Your task to perform on an android device: turn off sleep mode Image 0: 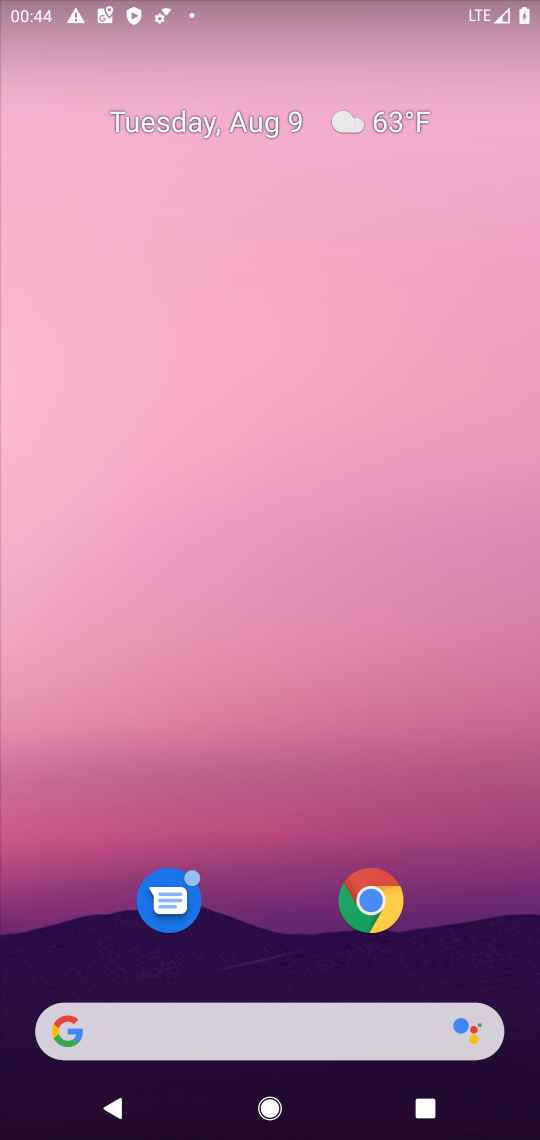
Step 0: press home button
Your task to perform on an android device: turn off sleep mode Image 1: 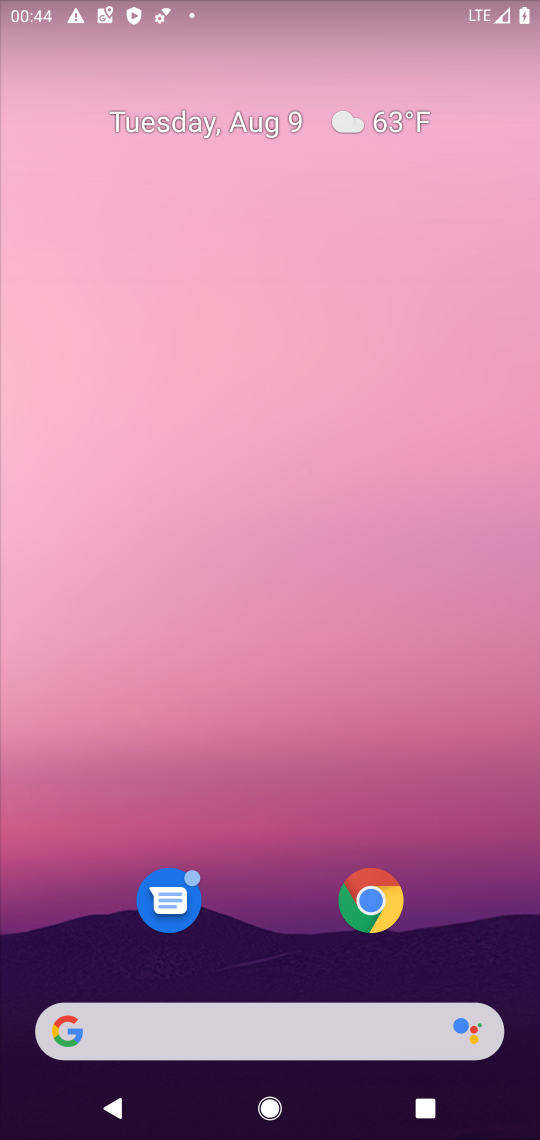
Step 1: drag from (262, 959) to (404, 148)
Your task to perform on an android device: turn off sleep mode Image 2: 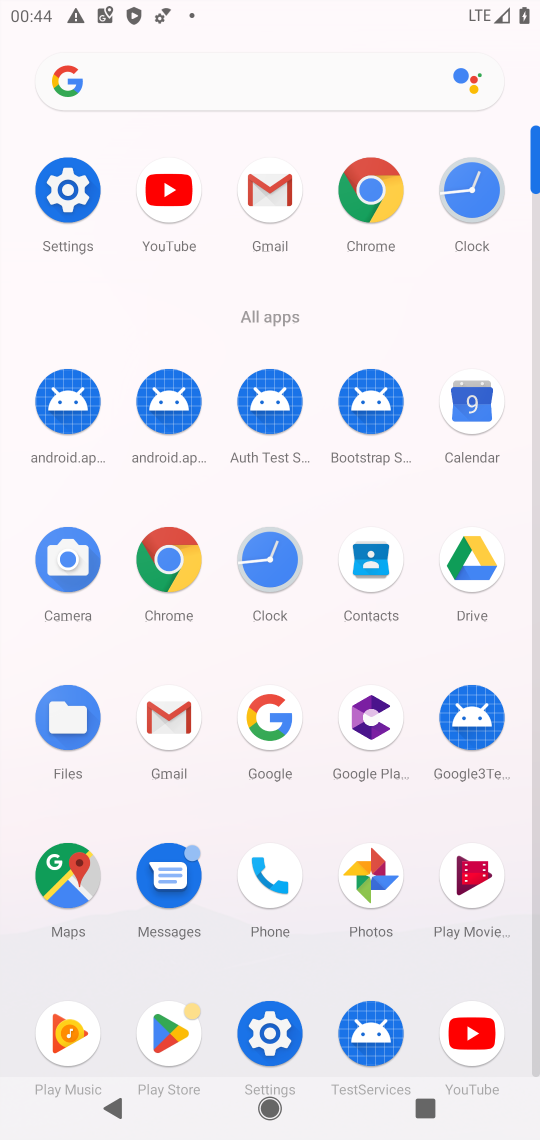
Step 2: click (58, 191)
Your task to perform on an android device: turn off sleep mode Image 3: 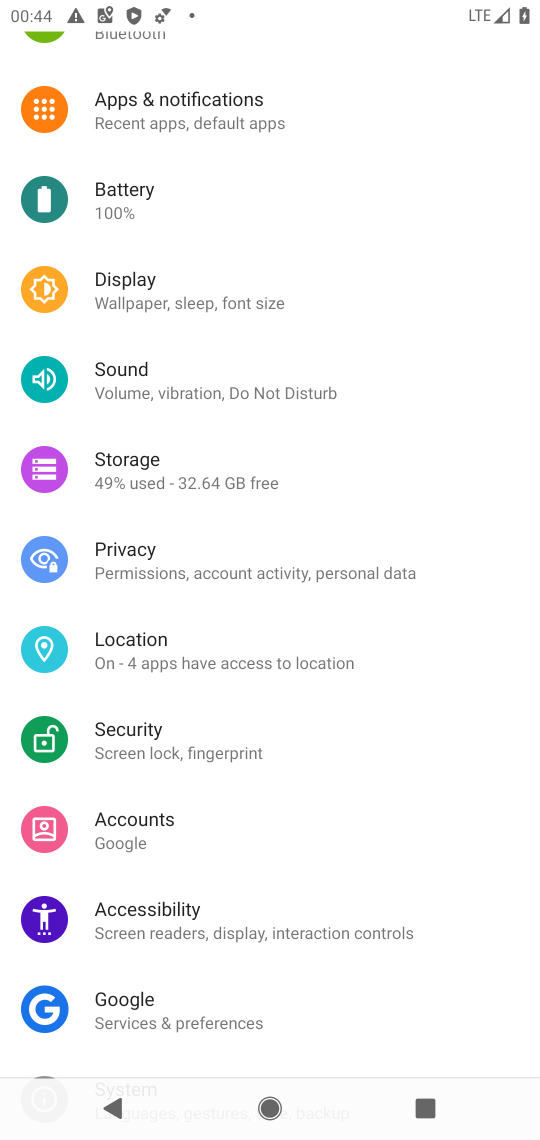
Step 3: drag from (474, 288) to (471, 486)
Your task to perform on an android device: turn off sleep mode Image 4: 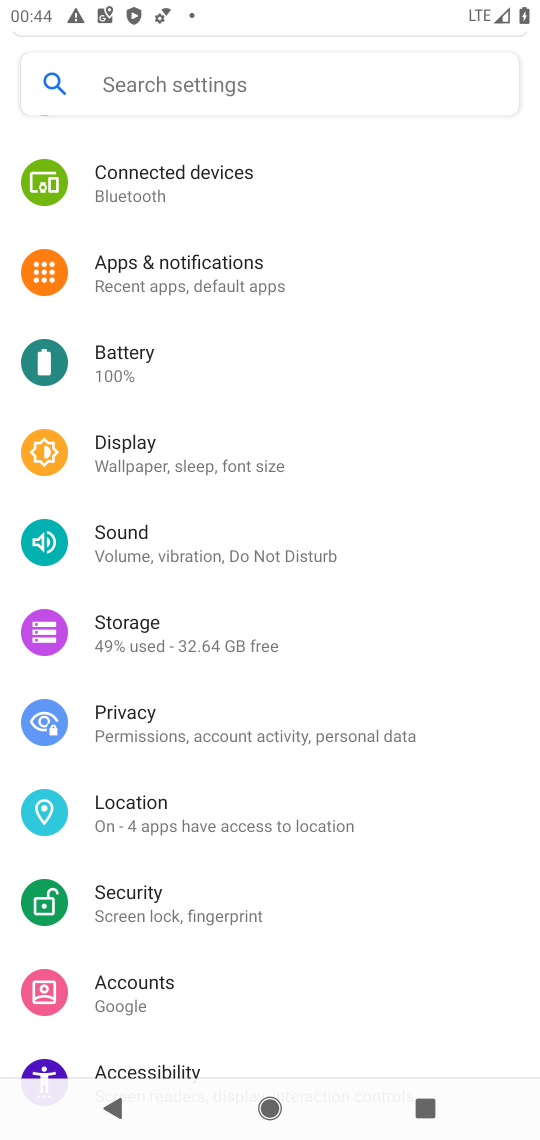
Step 4: drag from (450, 165) to (450, 450)
Your task to perform on an android device: turn off sleep mode Image 5: 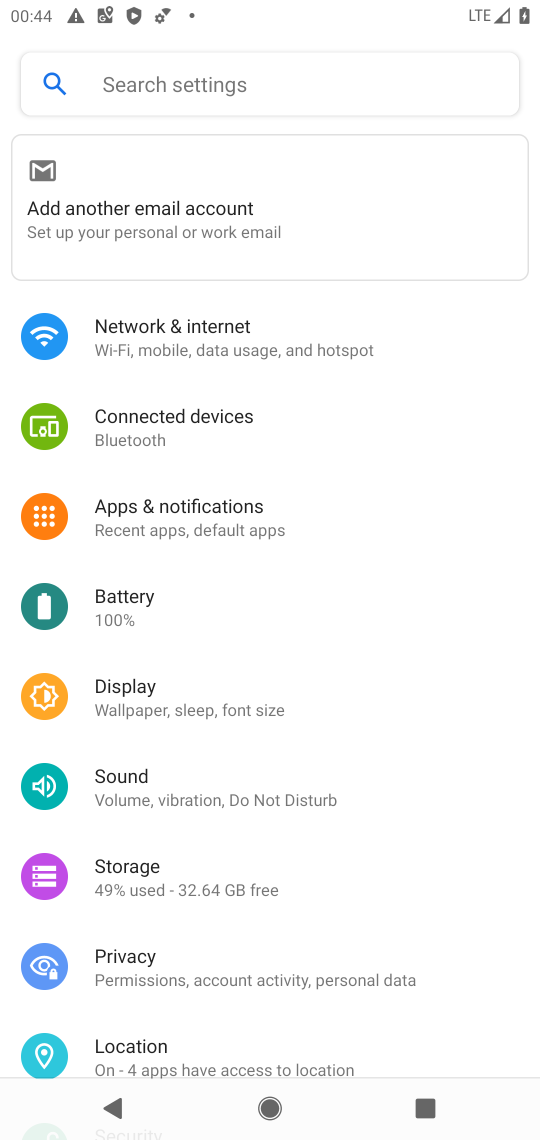
Step 5: drag from (452, 301) to (454, 395)
Your task to perform on an android device: turn off sleep mode Image 6: 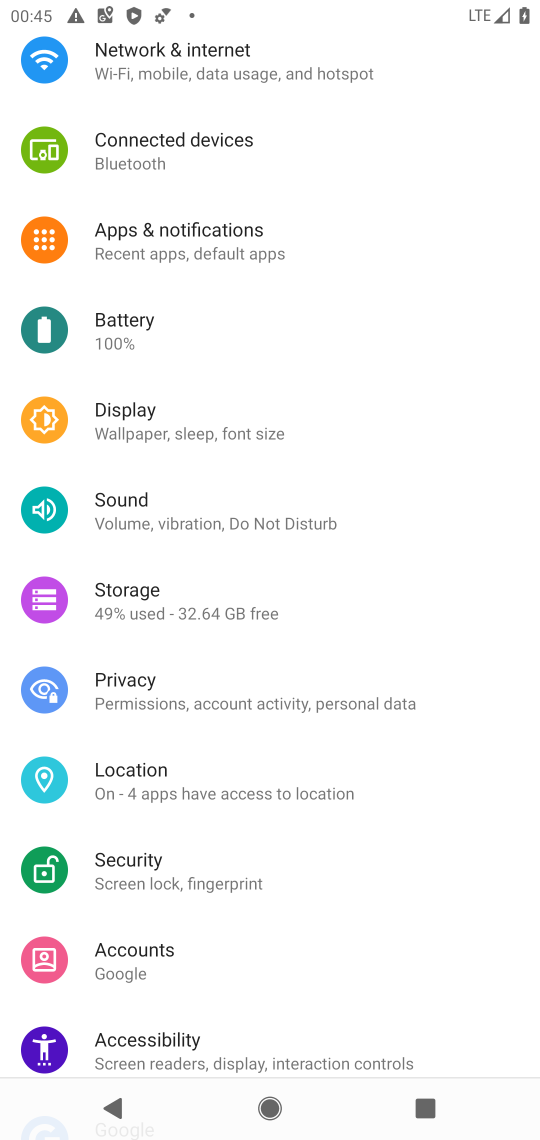
Step 6: drag from (432, 619) to (422, 412)
Your task to perform on an android device: turn off sleep mode Image 7: 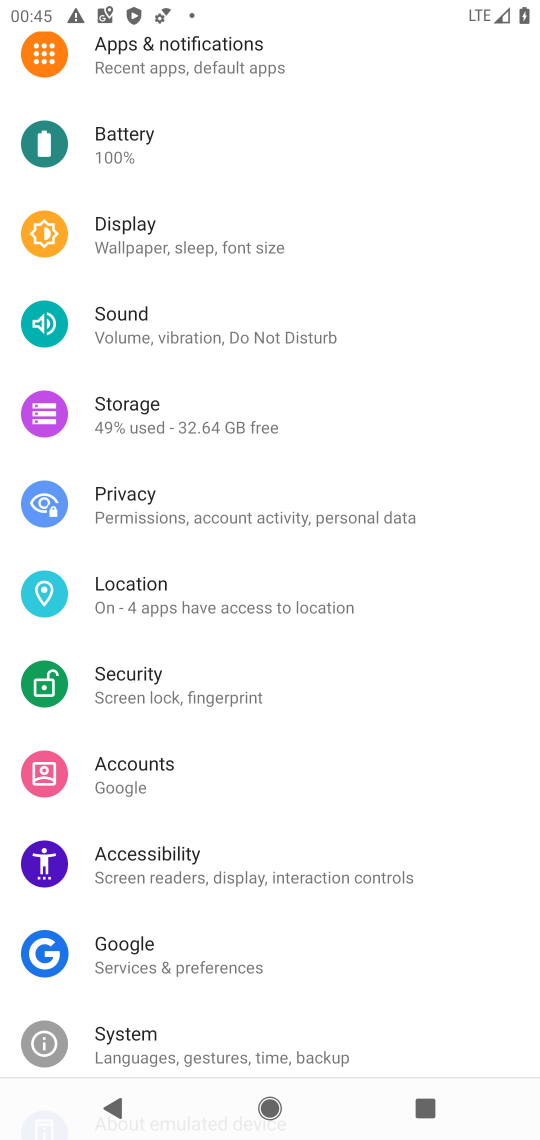
Step 7: click (261, 247)
Your task to perform on an android device: turn off sleep mode Image 8: 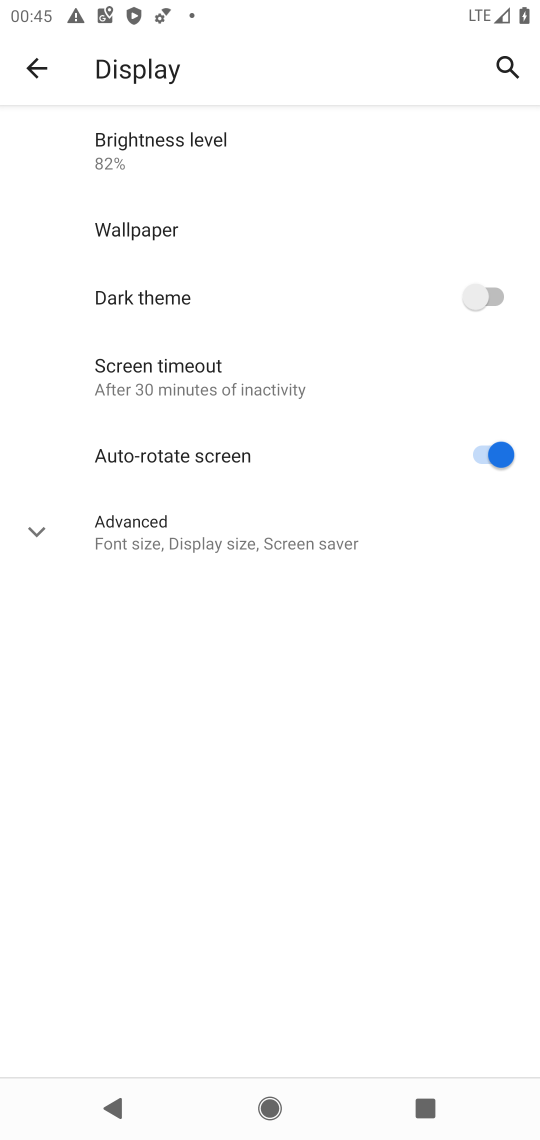
Step 8: click (313, 521)
Your task to perform on an android device: turn off sleep mode Image 9: 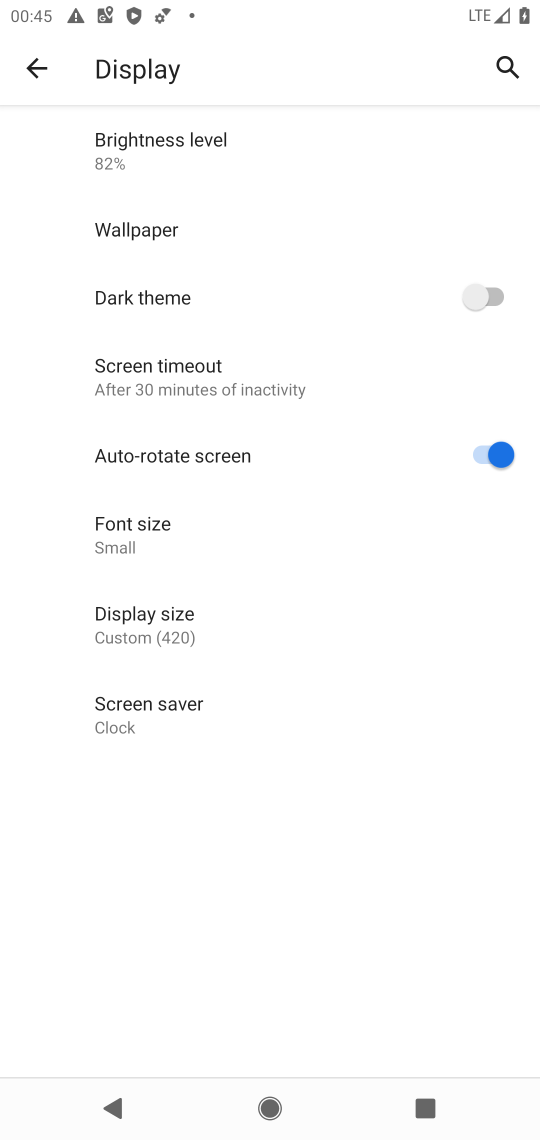
Step 9: task complete